Your task to perform on an android device: see creations saved in the google photos Image 0: 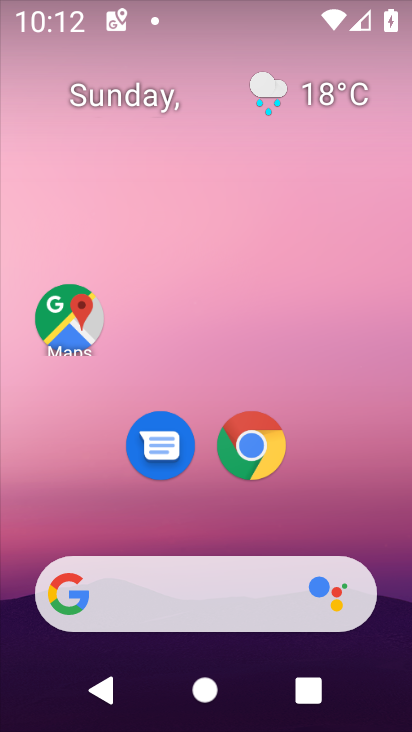
Step 0: press home button
Your task to perform on an android device: see creations saved in the google photos Image 1: 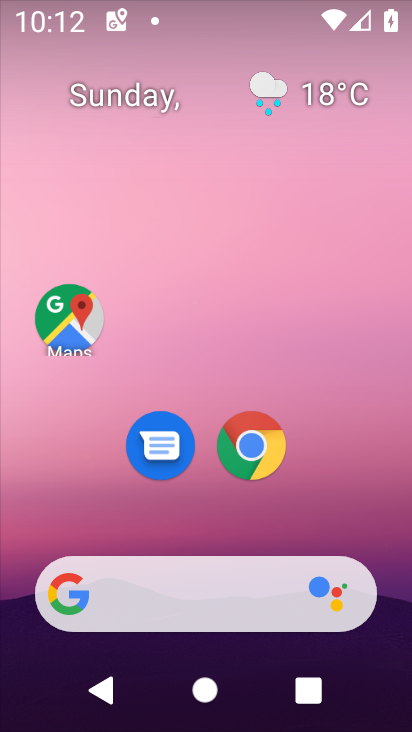
Step 1: drag from (204, 519) to (230, 3)
Your task to perform on an android device: see creations saved in the google photos Image 2: 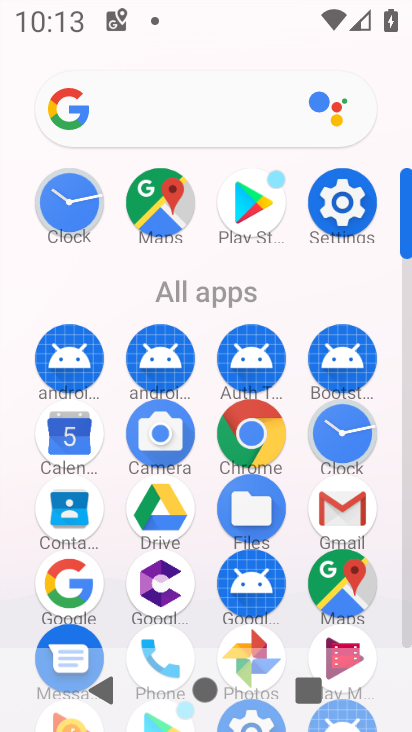
Step 2: drag from (202, 608) to (222, 177)
Your task to perform on an android device: see creations saved in the google photos Image 3: 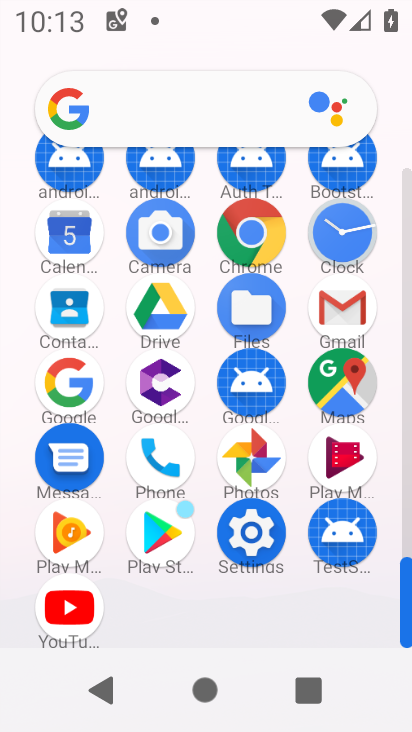
Step 3: click (246, 444)
Your task to perform on an android device: see creations saved in the google photos Image 4: 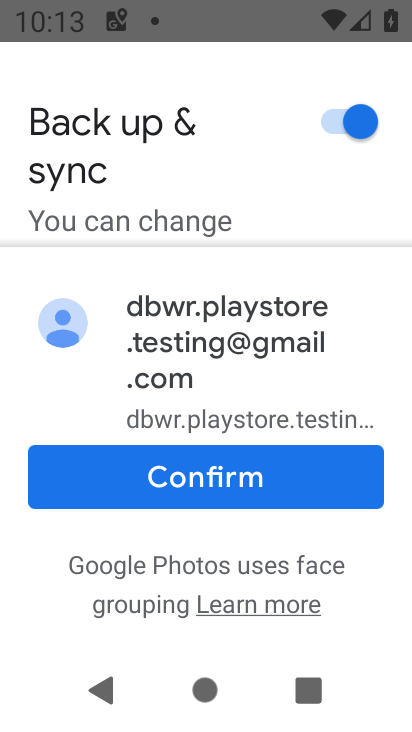
Step 4: click (208, 478)
Your task to perform on an android device: see creations saved in the google photos Image 5: 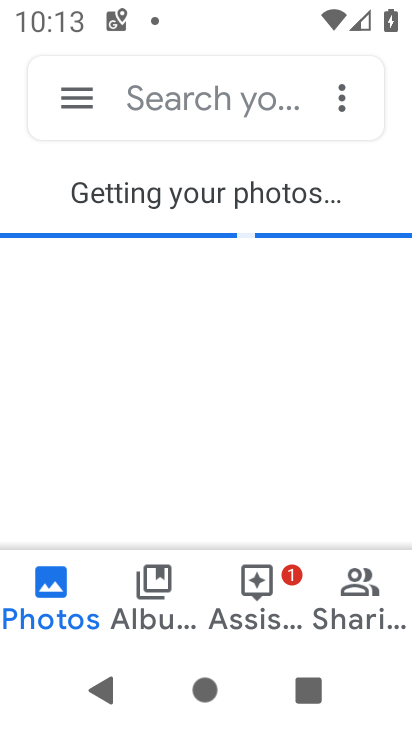
Step 5: click (69, 95)
Your task to perform on an android device: see creations saved in the google photos Image 6: 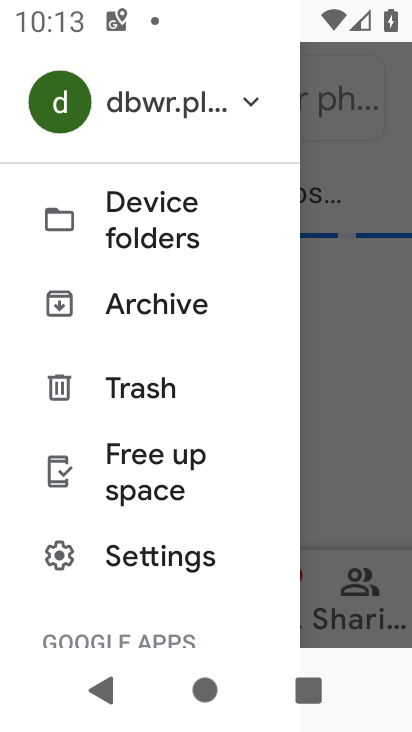
Step 6: click (351, 434)
Your task to perform on an android device: see creations saved in the google photos Image 7: 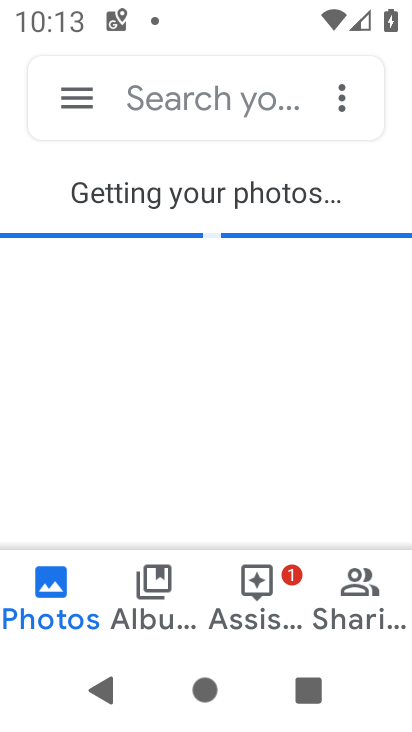
Step 7: click (170, 96)
Your task to perform on an android device: see creations saved in the google photos Image 8: 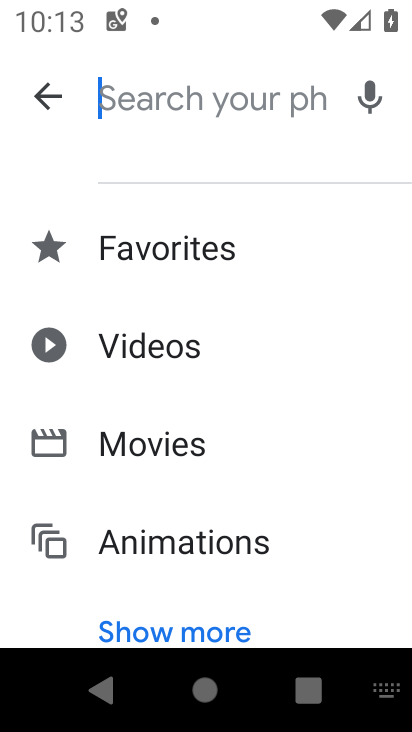
Step 8: click (163, 624)
Your task to perform on an android device: see creations saved in the google photos Image 9: 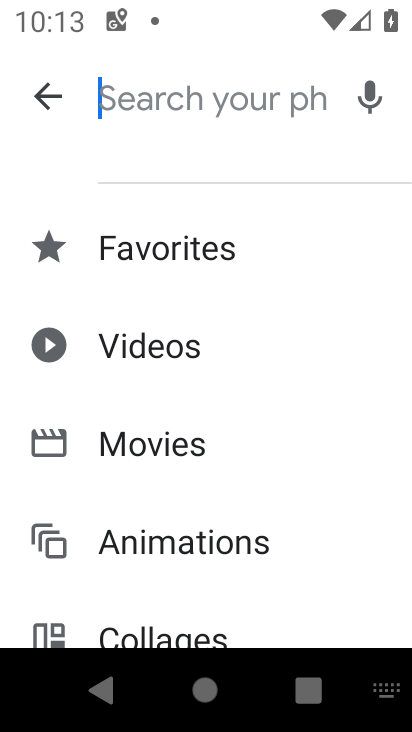
Step 9: drag from (192, 616) to (229, 243)
Your task to perform on an android device: see creations saved in the google photos Image 10: 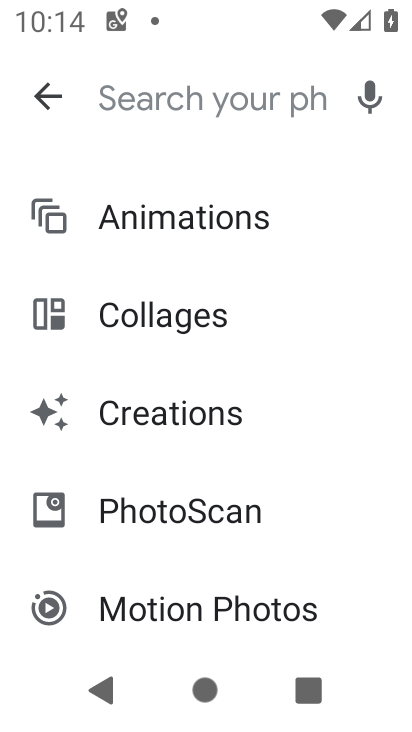
Step 10: click (249, 411)
Your task to perform on an android device: see creations saved in the google photos Image 11: 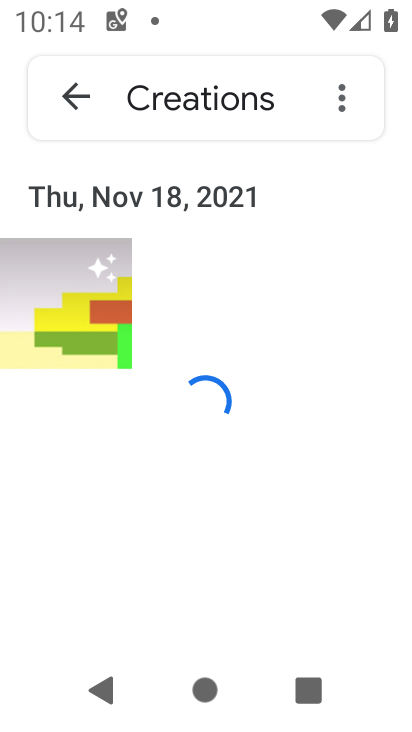
Step 11: task complete